Your task to perform on an android device: read, delete, or share a saved page in the chrome app Image 0: 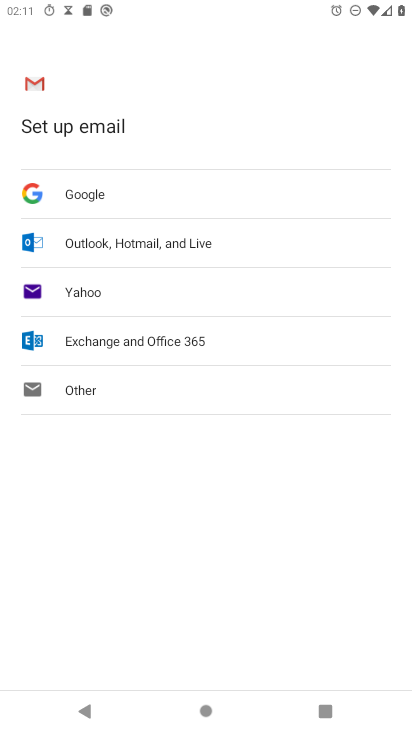
Step 0: press home button
Your task to perform on an android device: read, delete, or share a saved page in the chrome app Image 1: 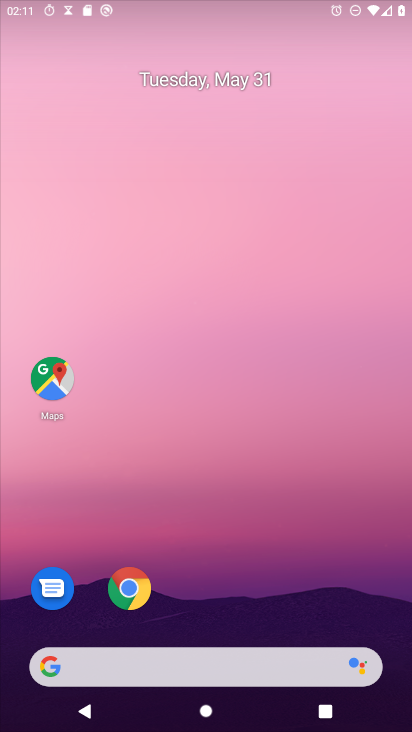
Step 1: drag from (329, 669) to (290, 39)
Your task to perform on an android device: read, delete, or share a saved page in the chrome app Image 2: 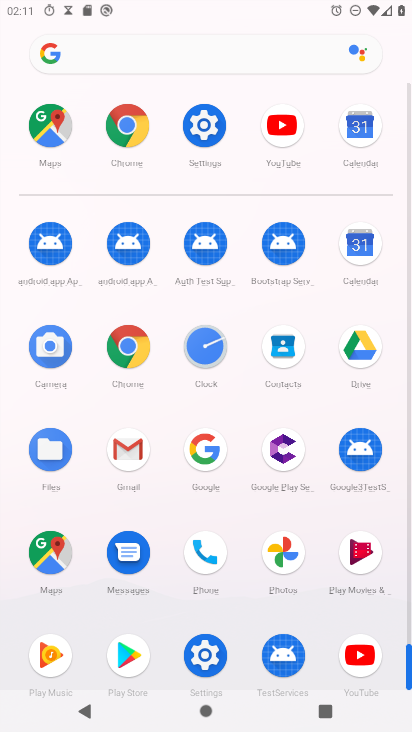
Step 2: click (132, 345)
Your task to perform on an android device: read, delete, or share a saved page in the chrome app Image 3: 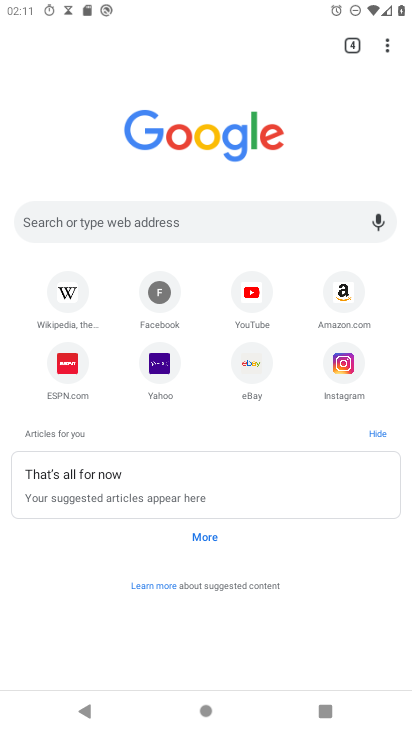
Step 3: task complete